Your task to perform on an android device: Open a new Chrome window Image 0: 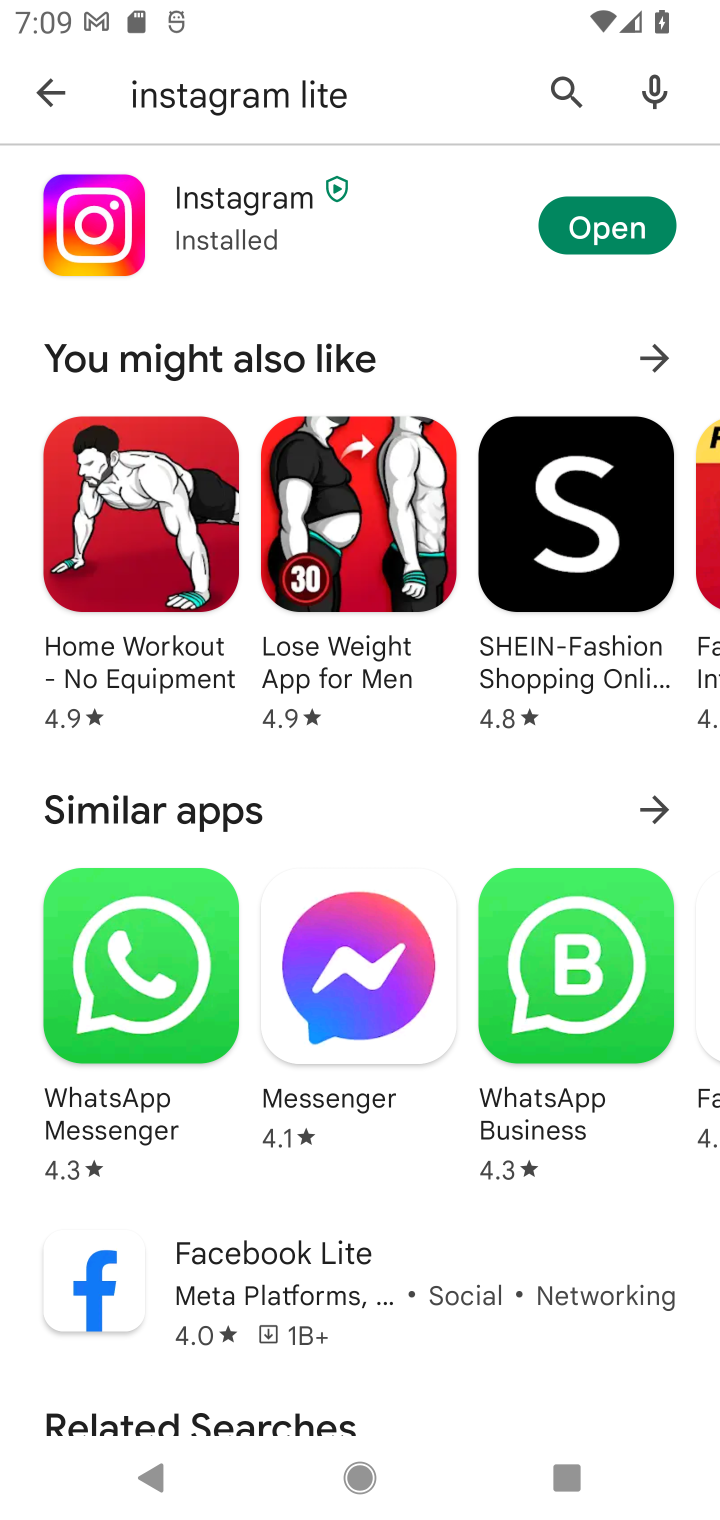
Step 0: press home button
Your task to perform on an android device: Open a new Chrome window Image 1: 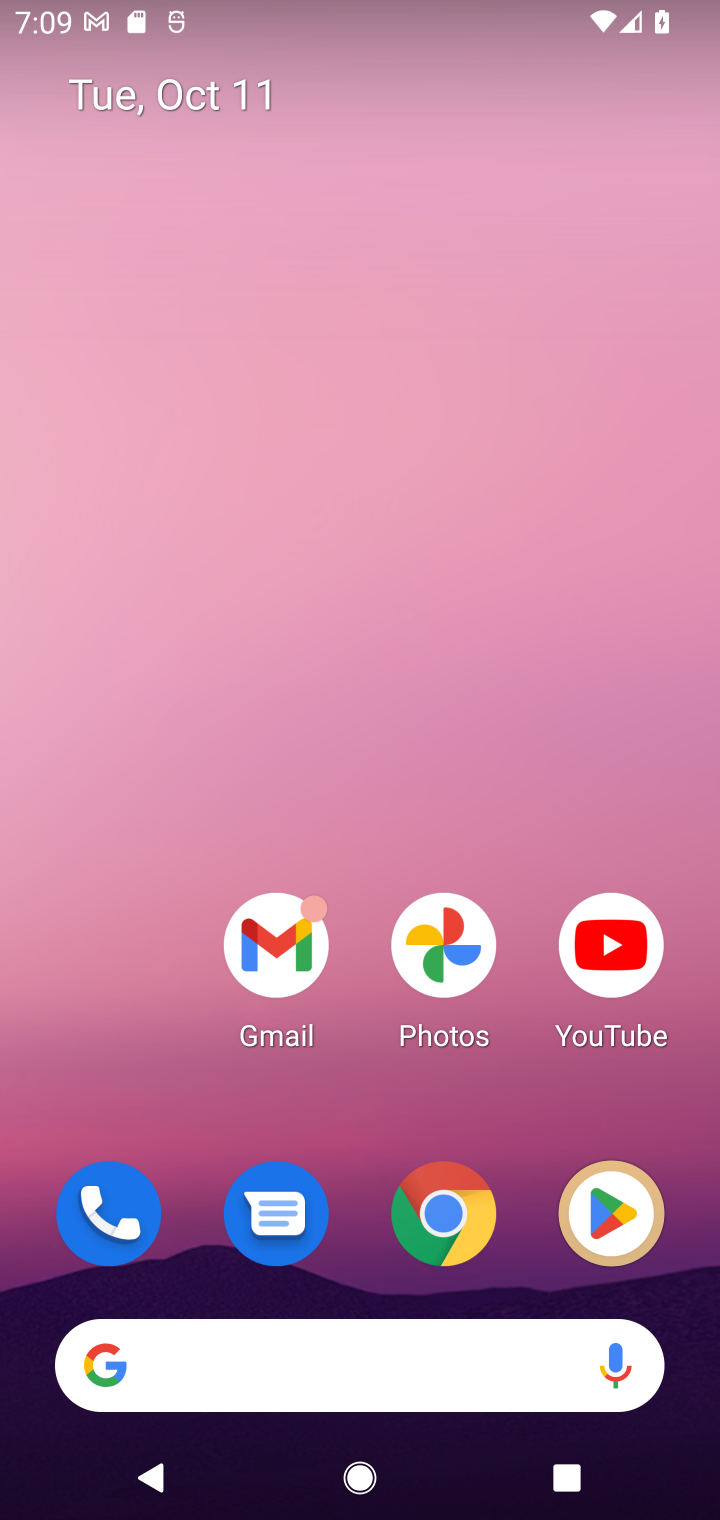
Step 1: drag from (324, 990) to (324, 378)
Your task to perform on an android device: Open a new Chrome window Image 2: 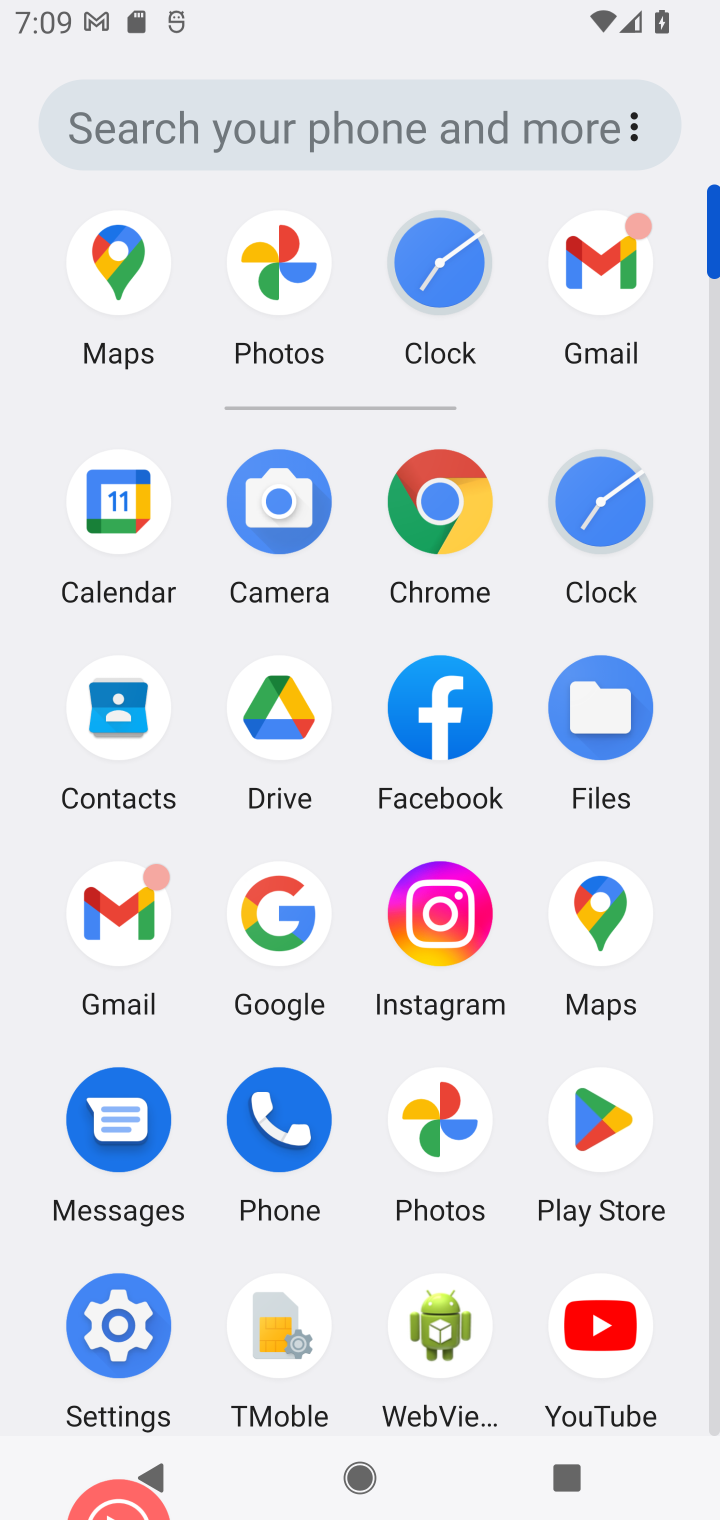
Step 2: click (424, 482)
Your task to perform on an android device: Open a new Chrome window Image 3: 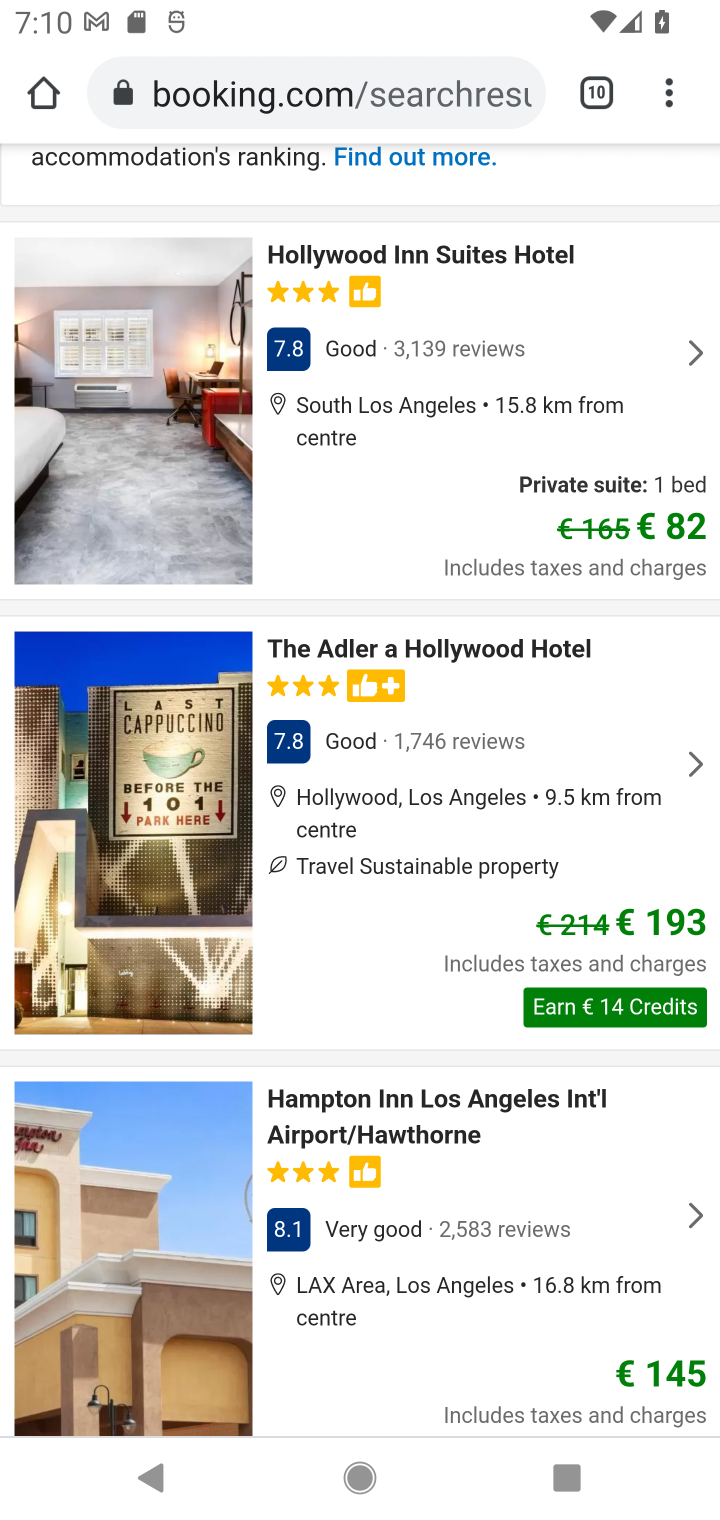
Step 3: click (428, 491)
Your task to perform on an android device: Open a new Chrome window Image 4: 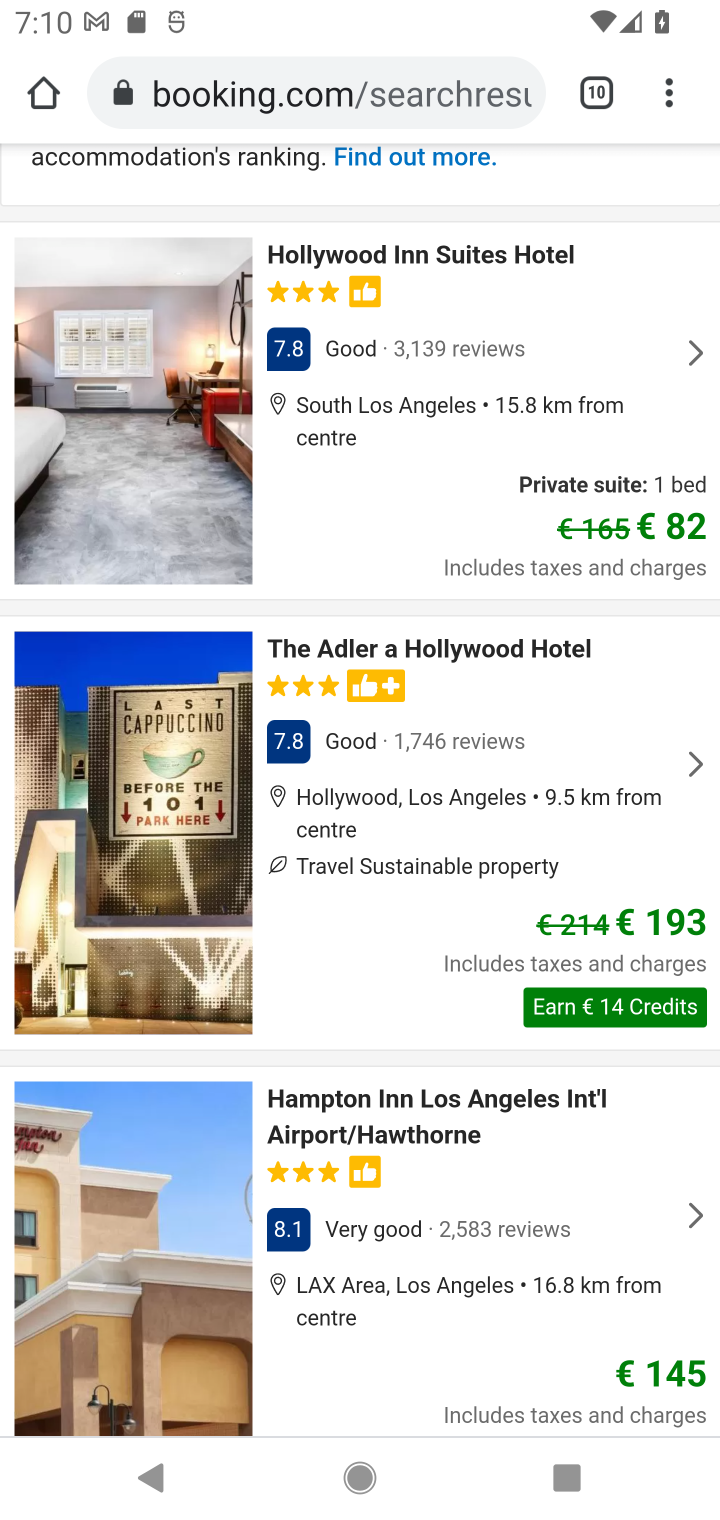
Step 4: click (664, 94)
Your task to perform on an android device: Open a new Chrome window Image 5: 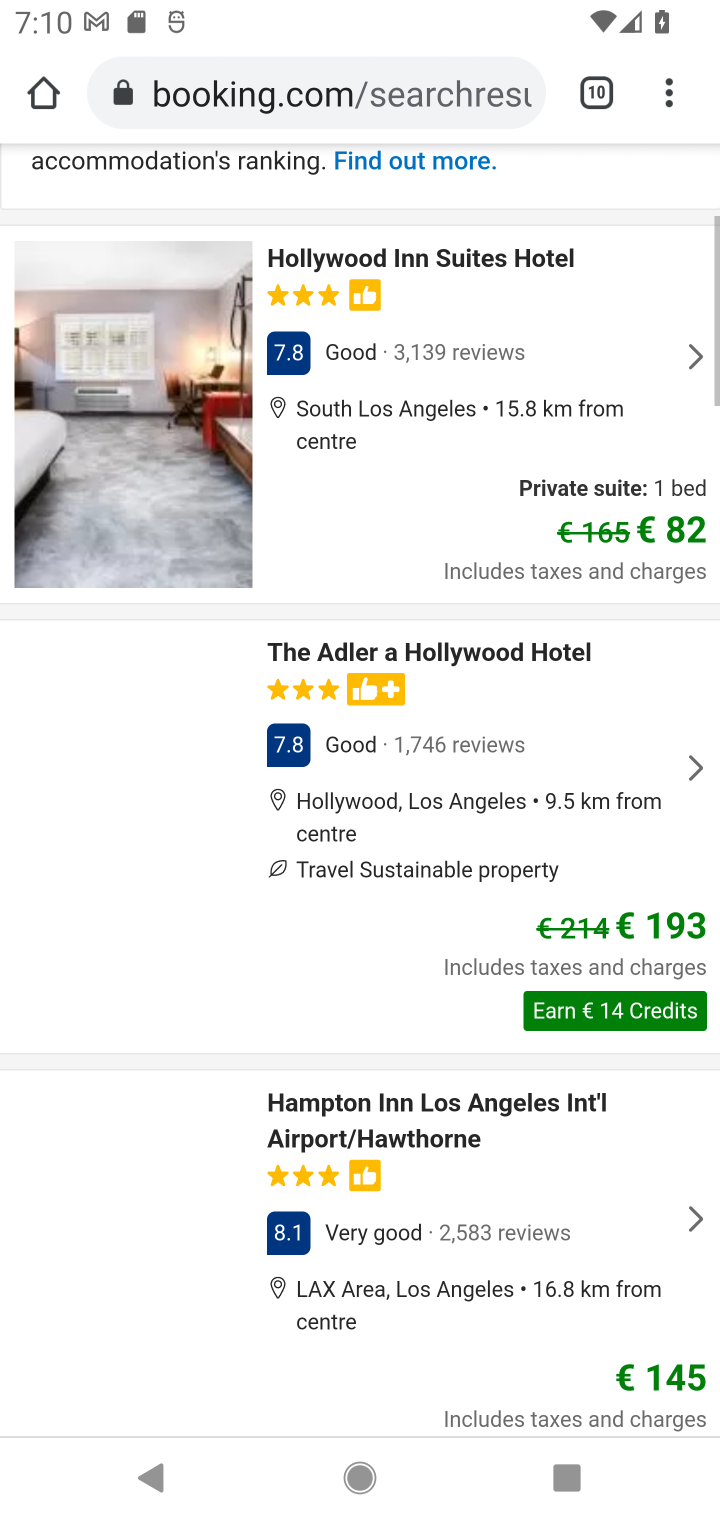
Step 5: click (695, 86)
Your task to perform on an android device: Open a new Chrome window Image 6: 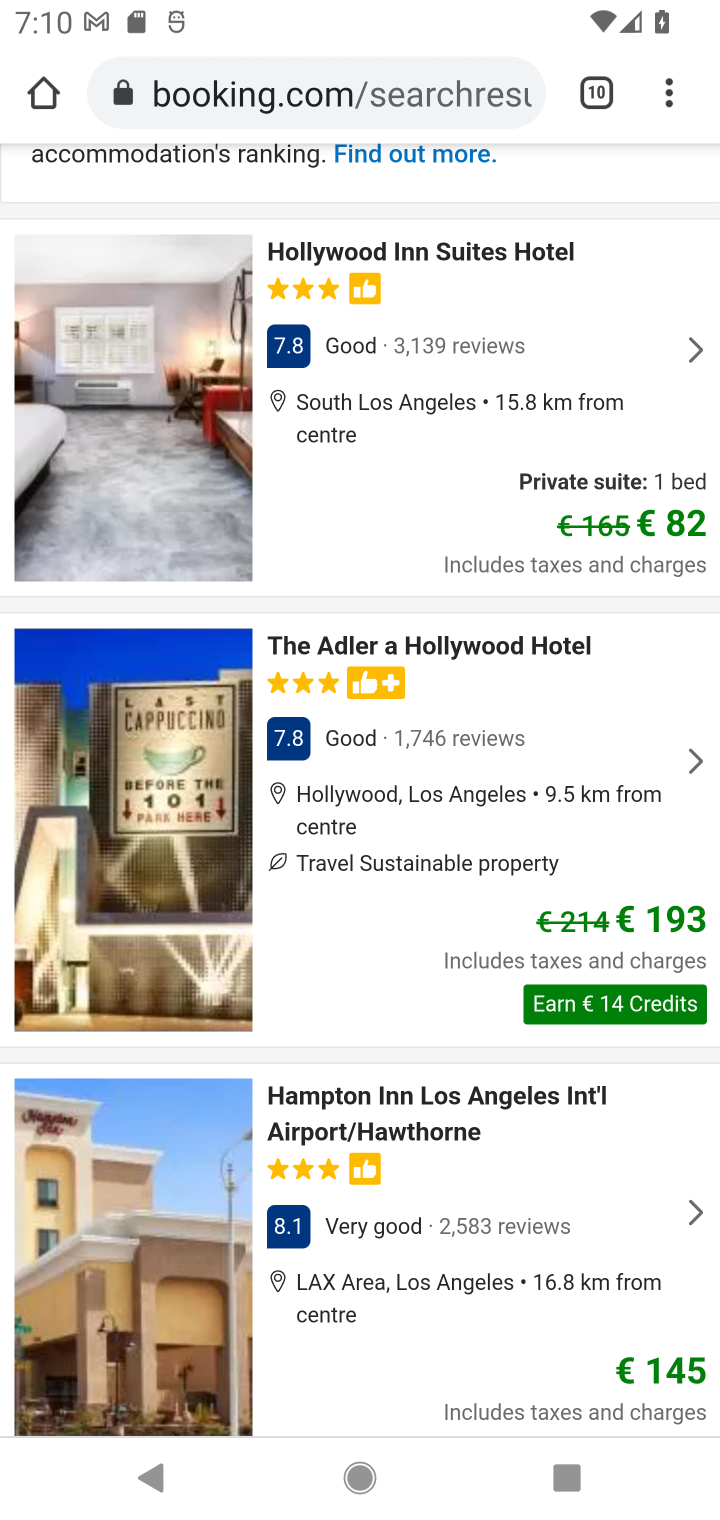
Step 6: click (659, 59)
Your task to perform on an android device: Open a new Chrome window Image 7: 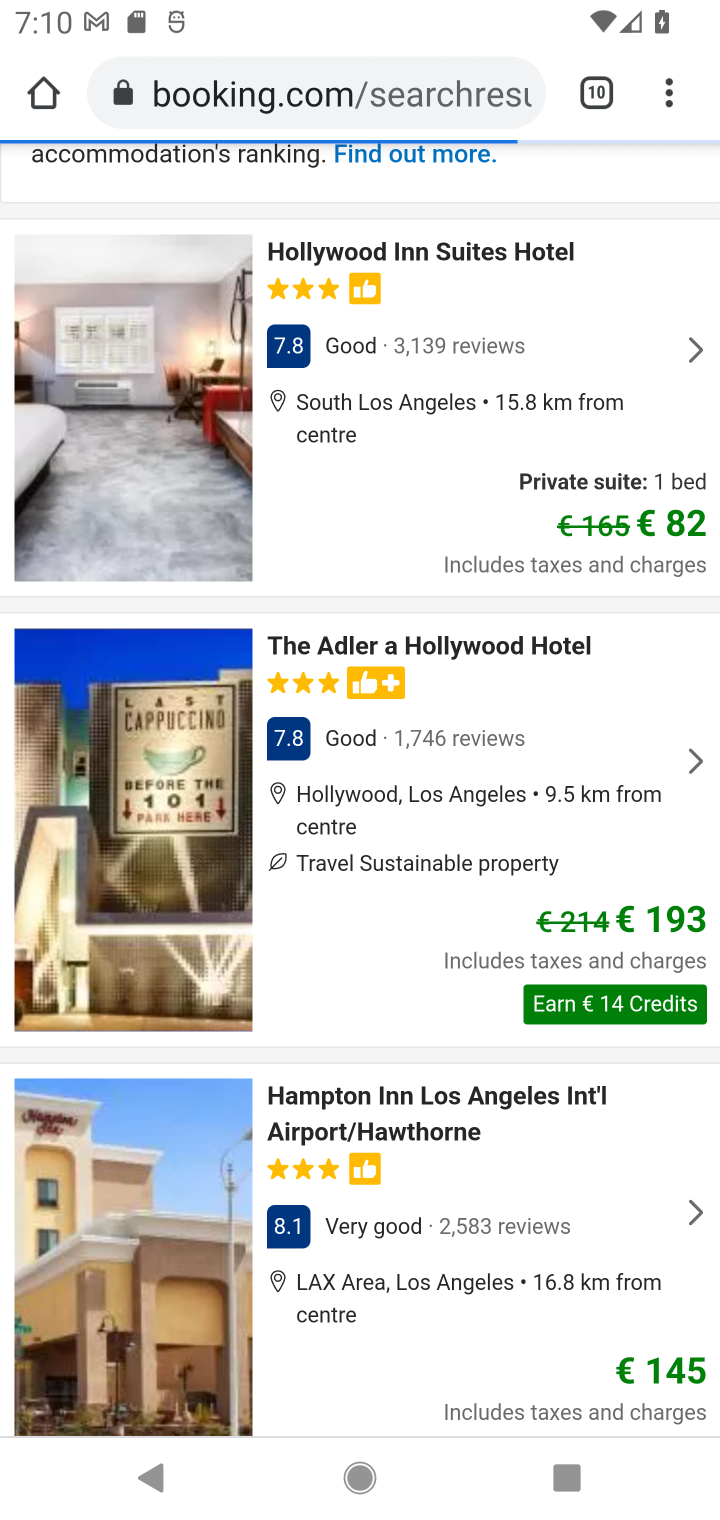
Step 7: click (665, 96)
Your task to perform on an android device: Open a new Chrome window Image 8: 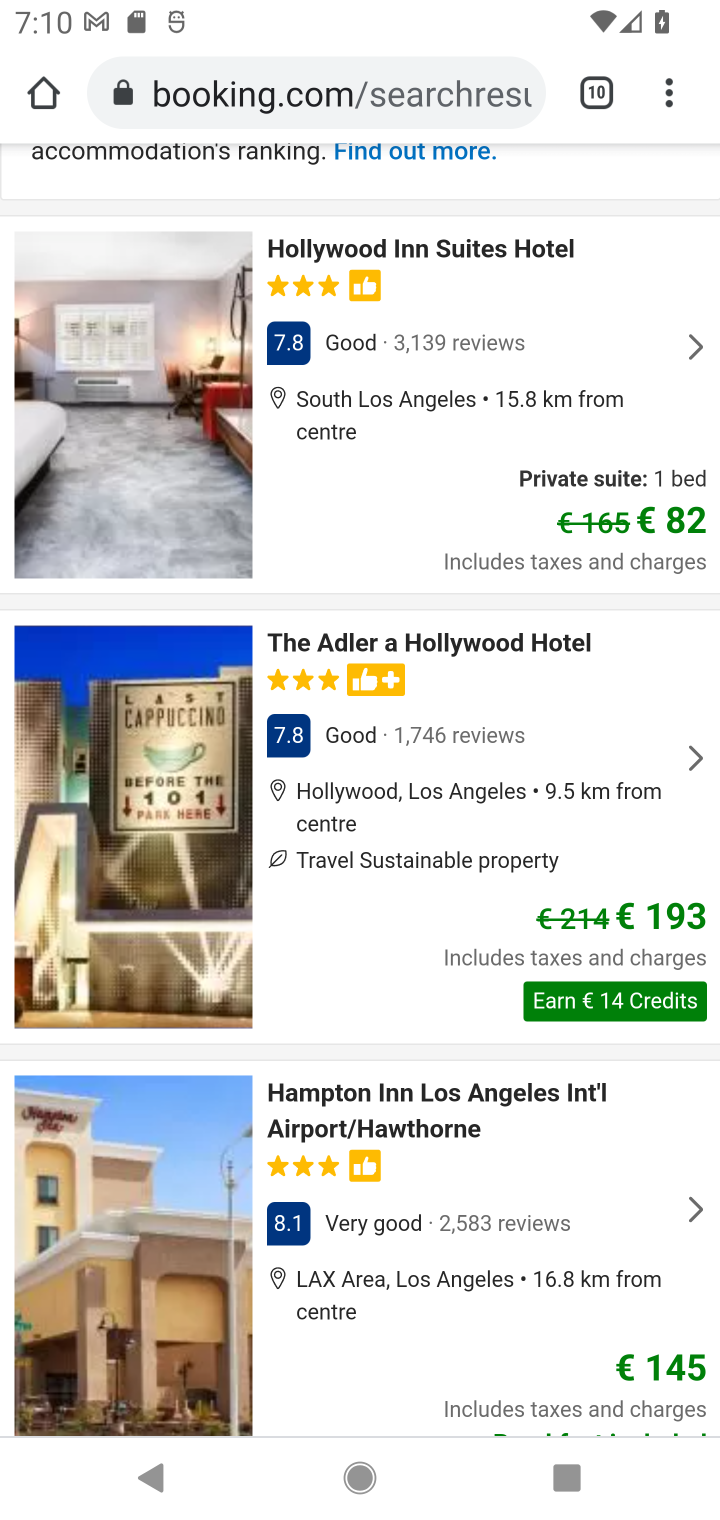
Step 8: click (667, 80)
Your task to perform on an android device: Open a new Chrome window Image 9: 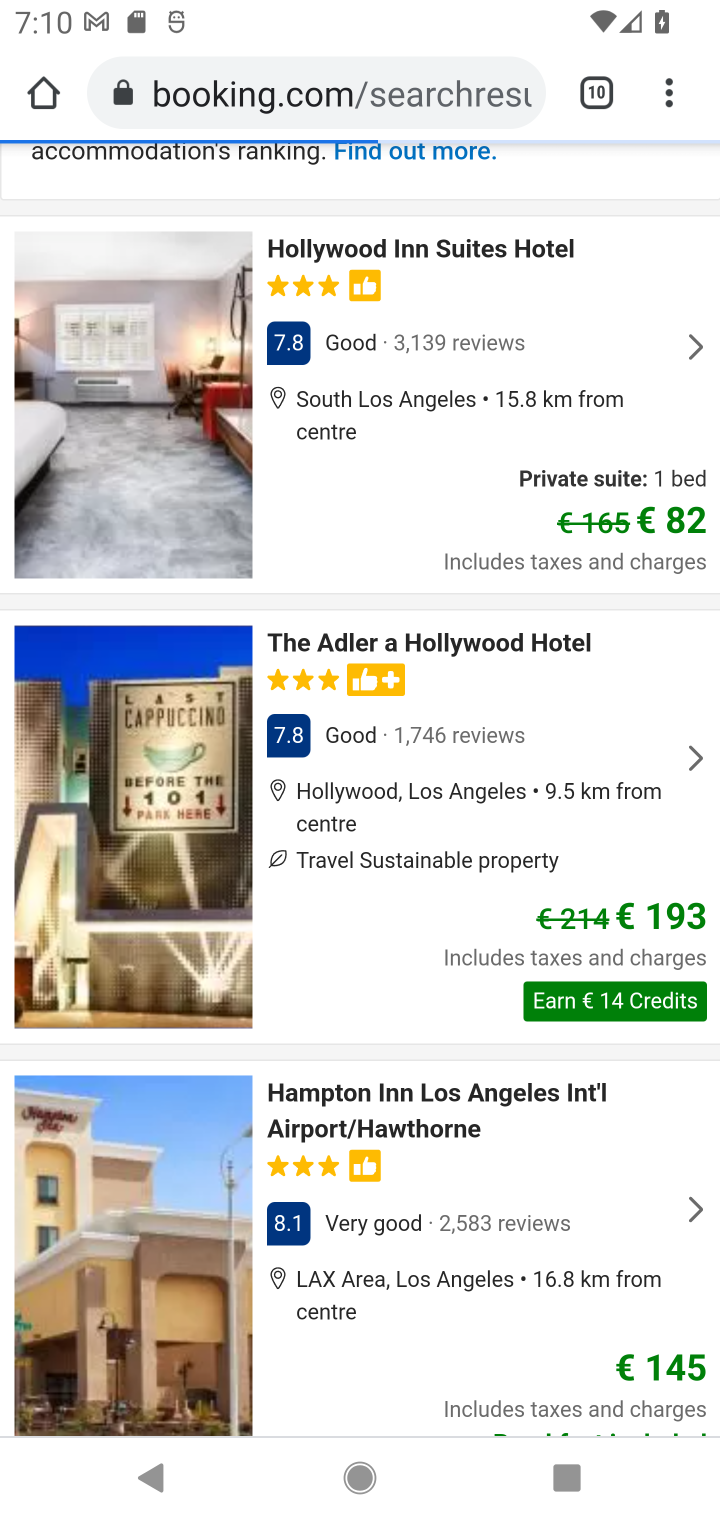
Step 9: click (667, 80)
Your task to perform on an android device: Open a new Chrome window Image 10: 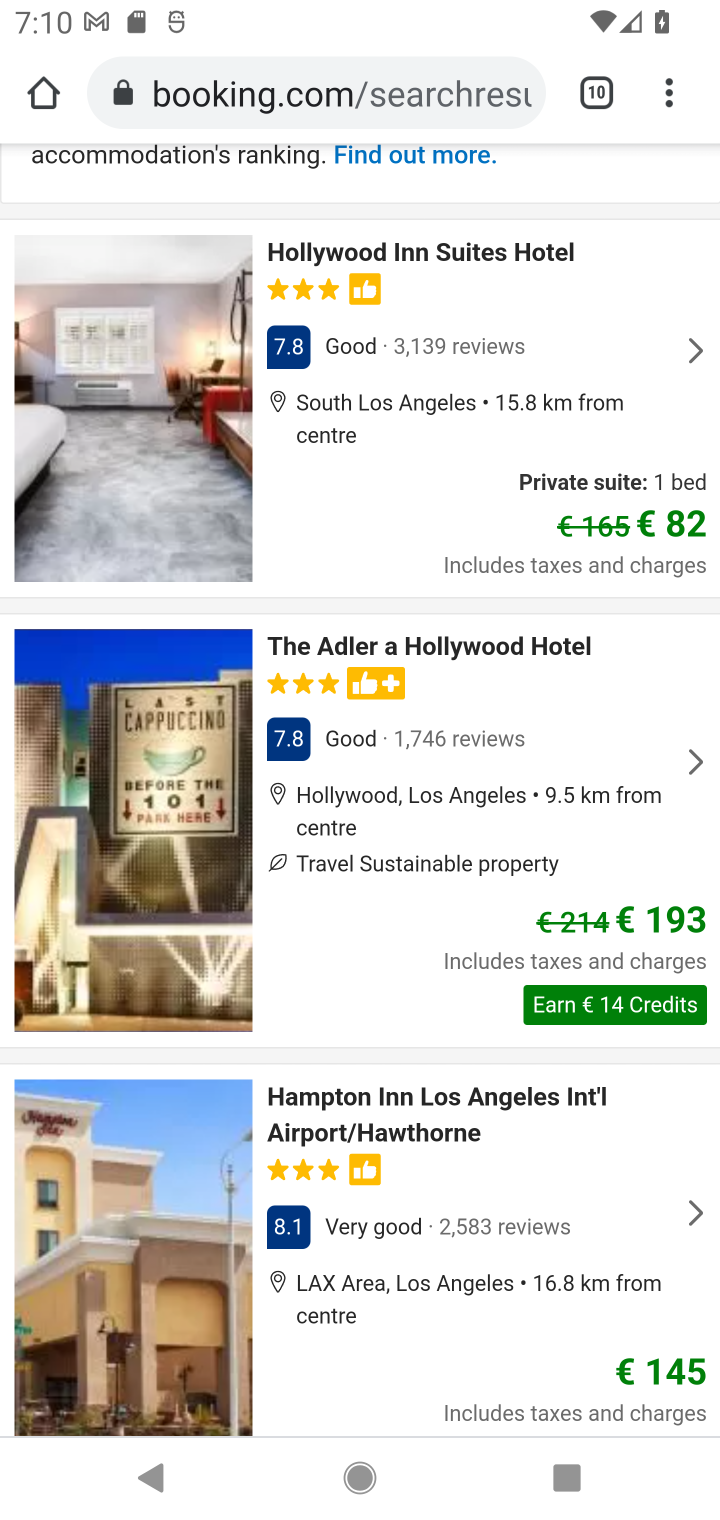
Step 10: click (663, 94)
Your task to perform on an android device: Open a new Chrome window Image 11: 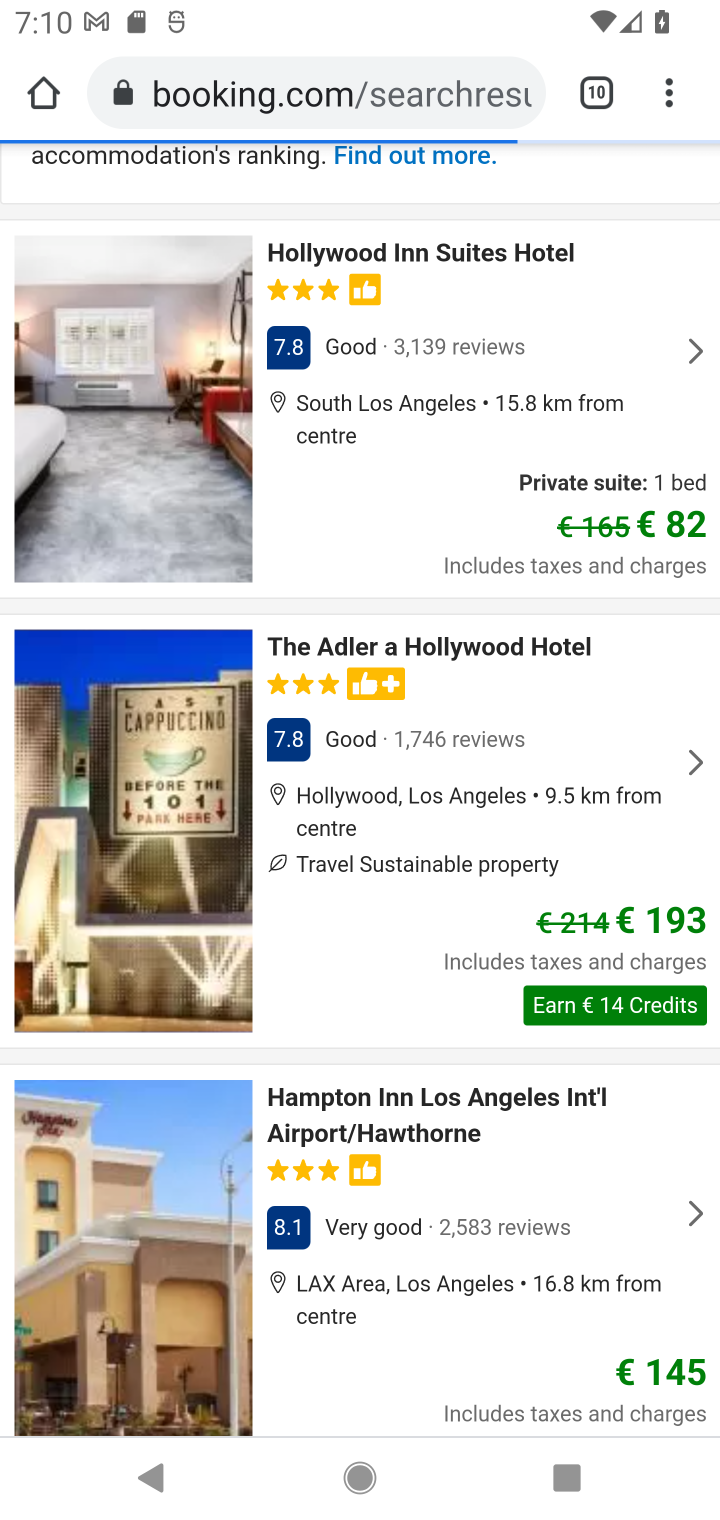
Step 11: click (658, 79)
Your task to perform on an android device: Open a new Chrome window Image 12: 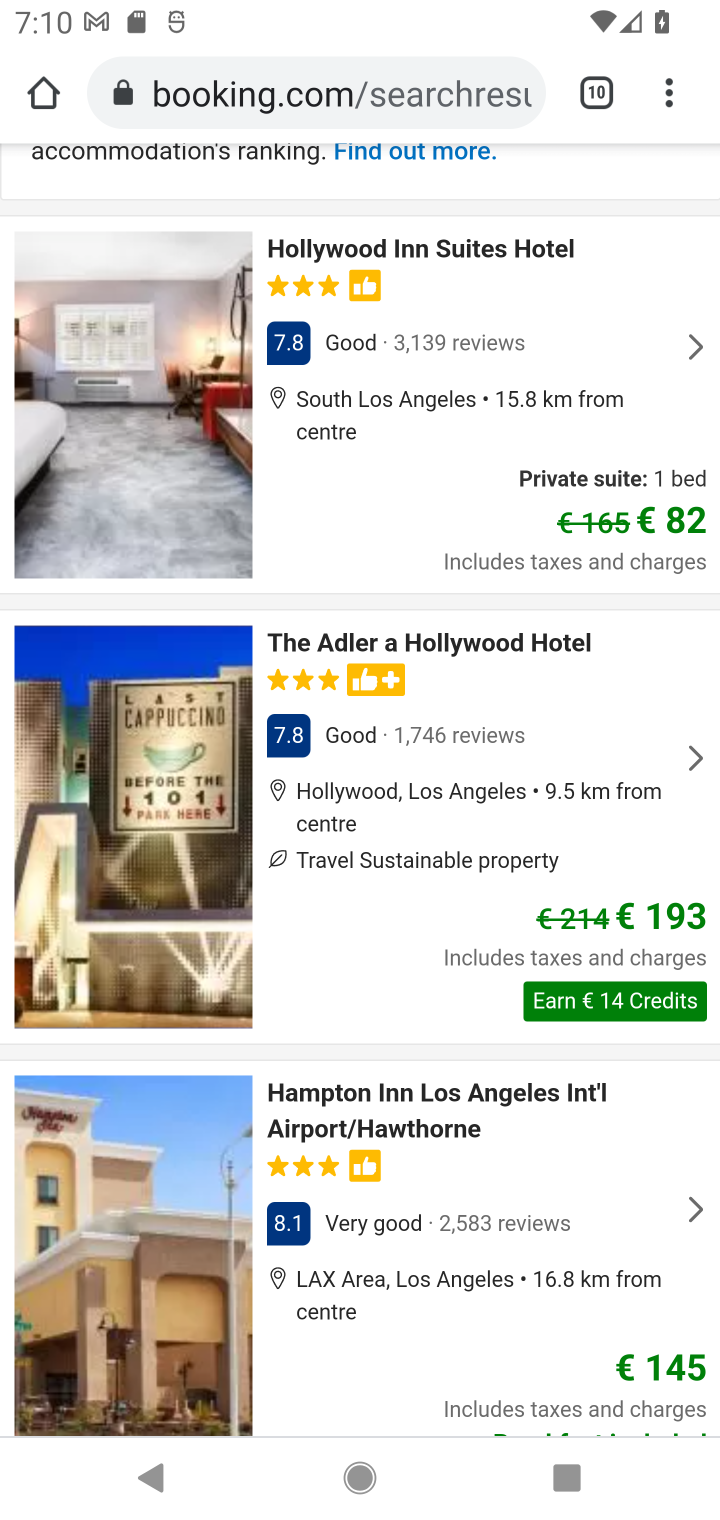
Step 12: click (658, 93)
Your task to perform on an android device: Open a new Chrome window Image 13: 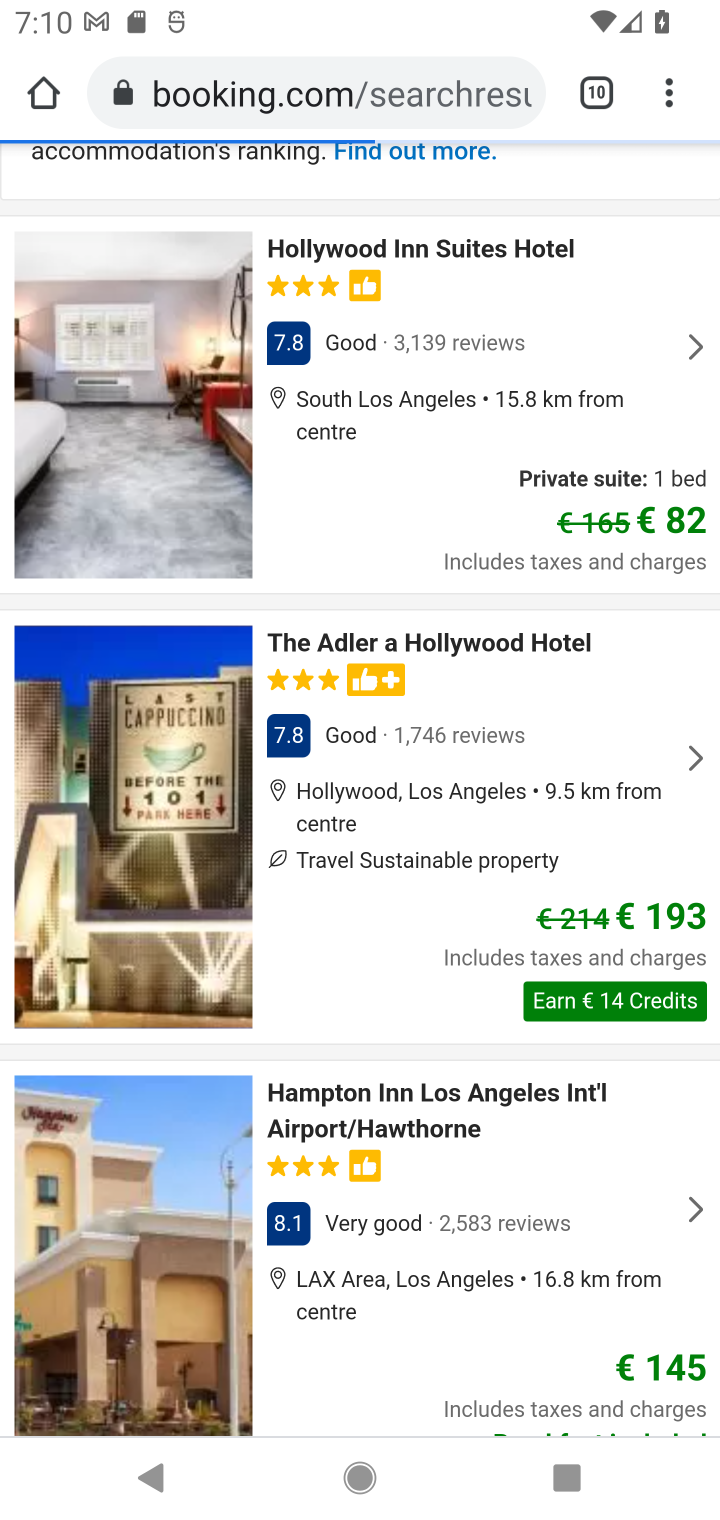
Step 13: click (658, 93)
Your task to perform on an android device: Open a new Chrome window Image 14: 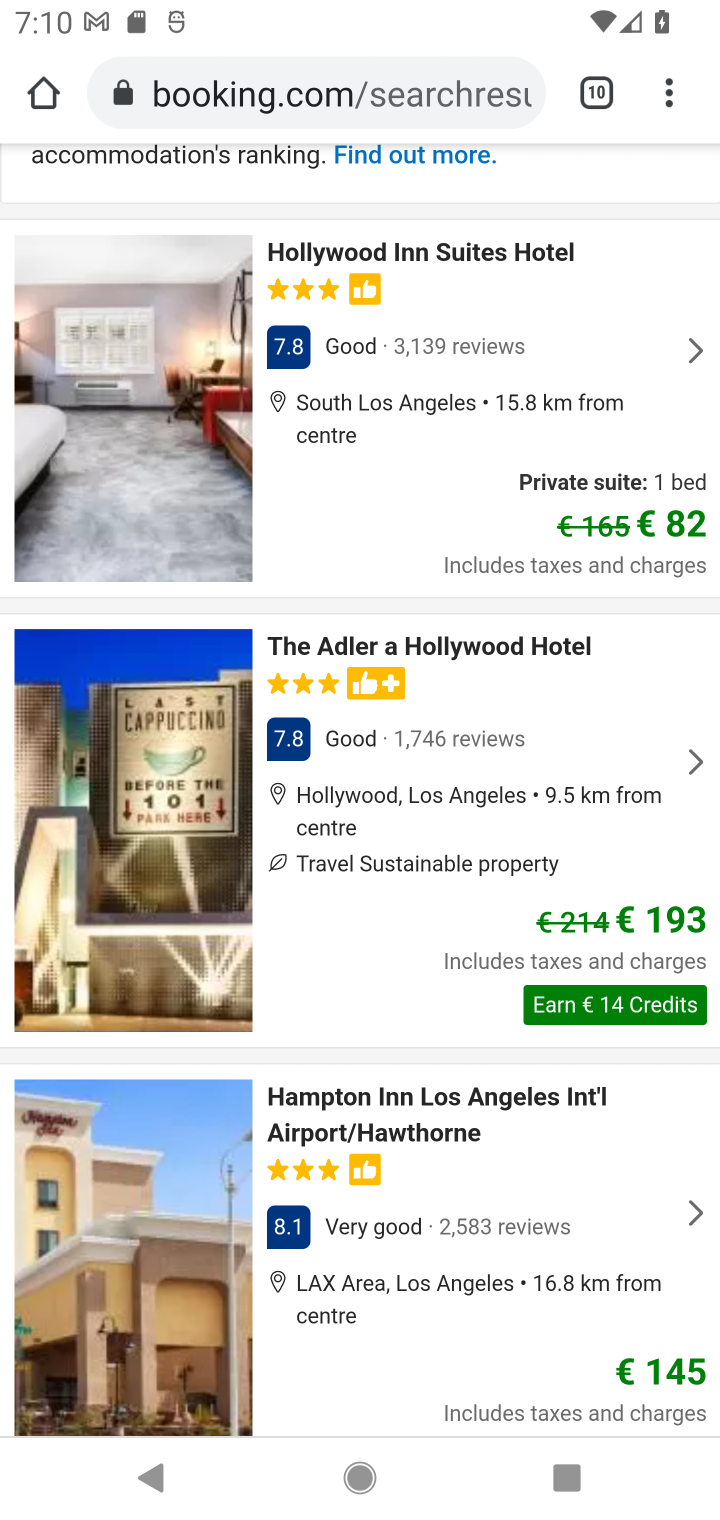
Step 14: click (640, 107)
Your task to perform on an android device: Open a new Chrome window Image 15: 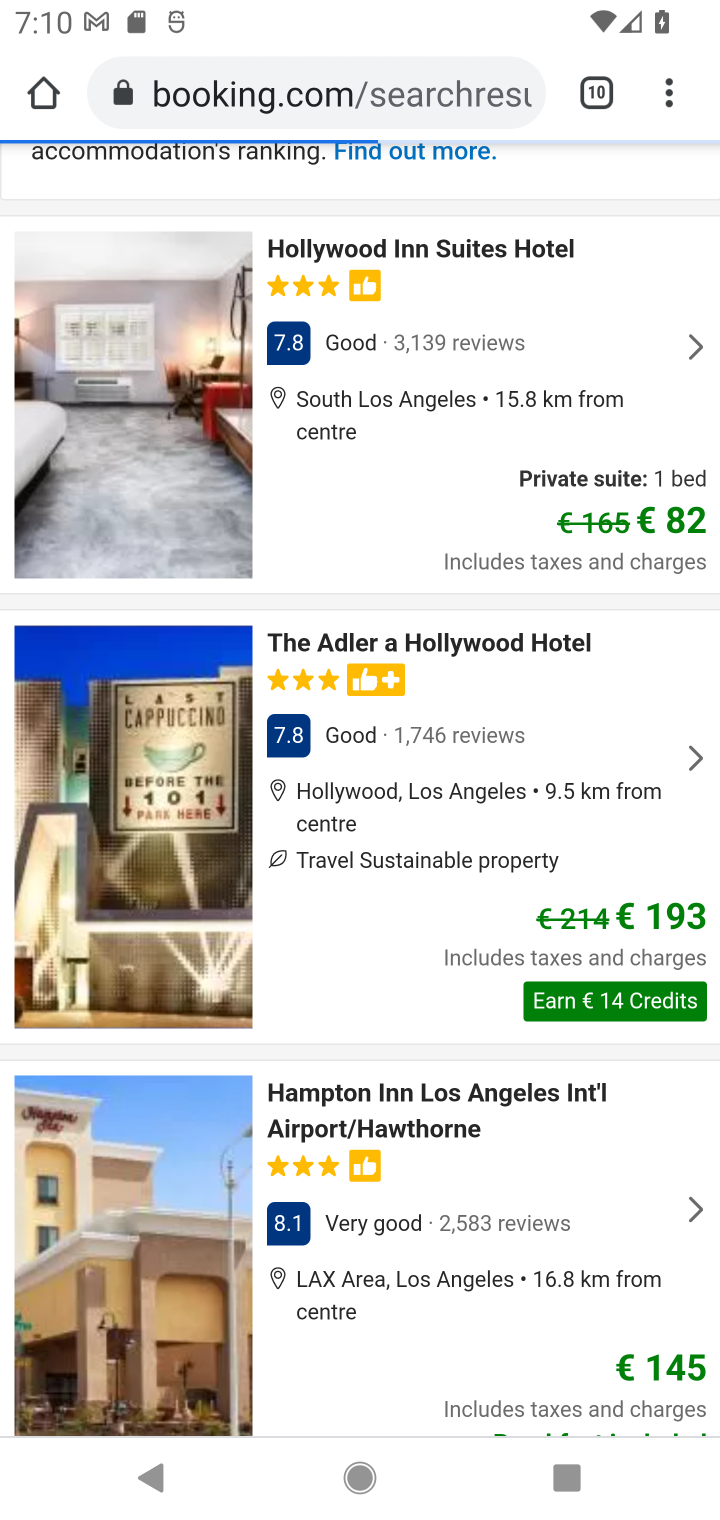
Step 15: click (648, 78)
Your task to perform on an android device: Open a new Chrome window Image 16: 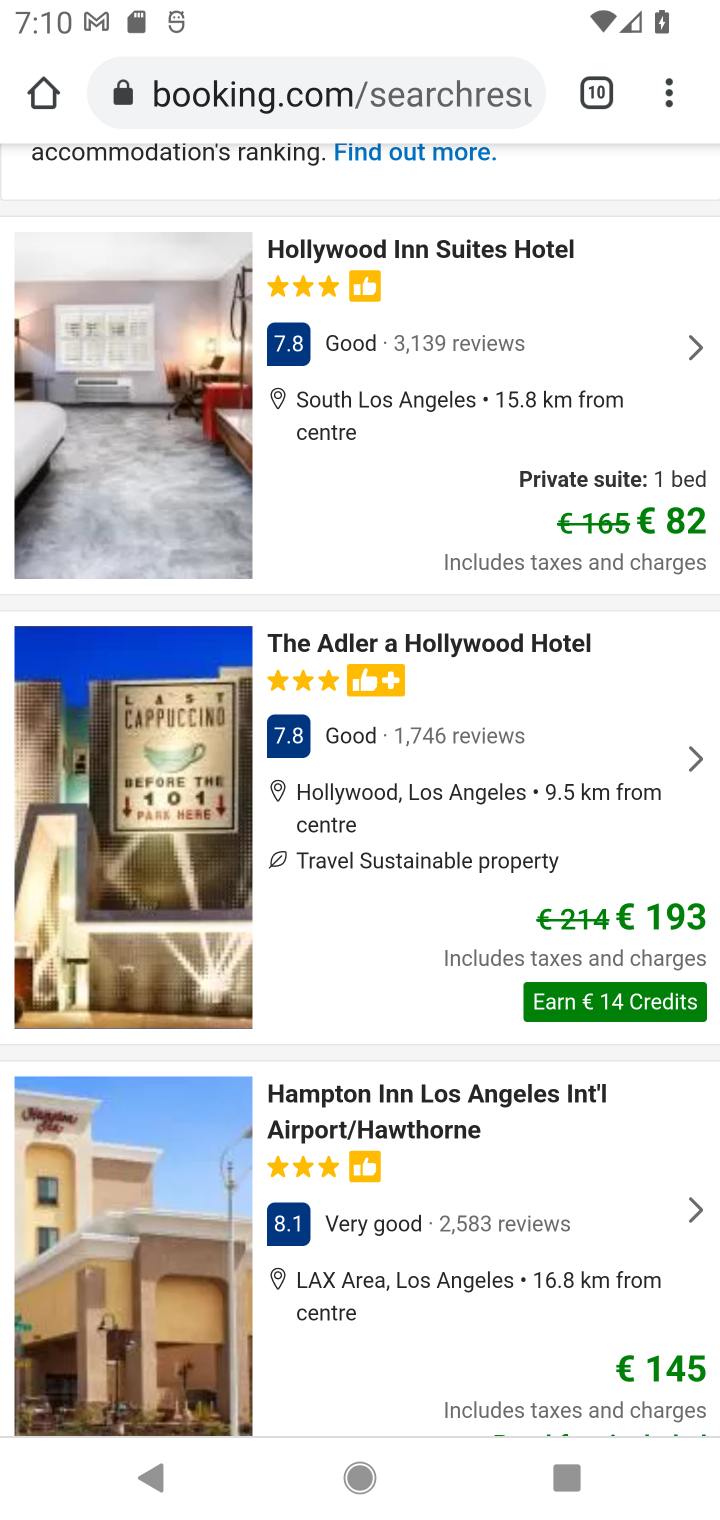
Step 16: click (678, 101)
Your task to perform on an android device: Open a new Chrome window Image 17: 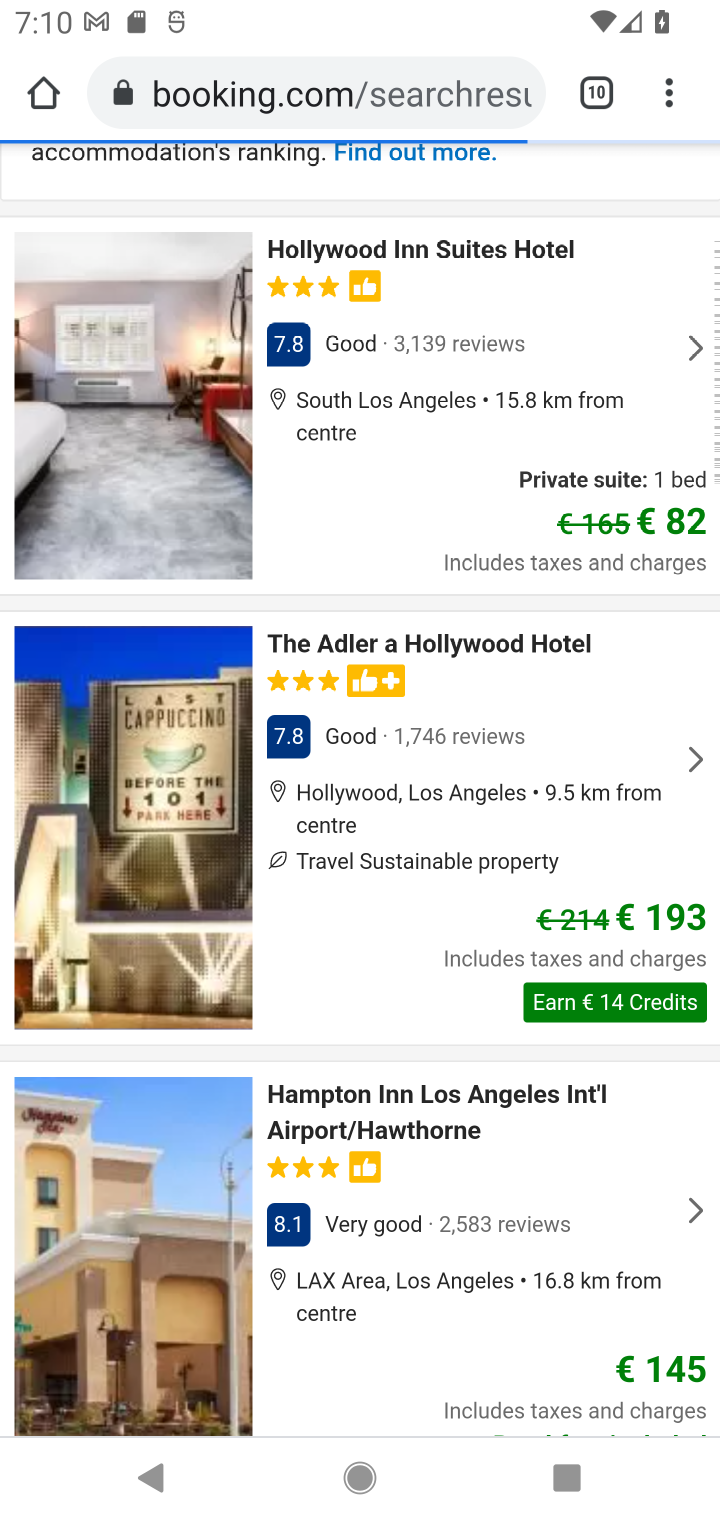
Step 17: click (678, 101)
Your task to perform on an android device: Open a new Chrome window Image 18: 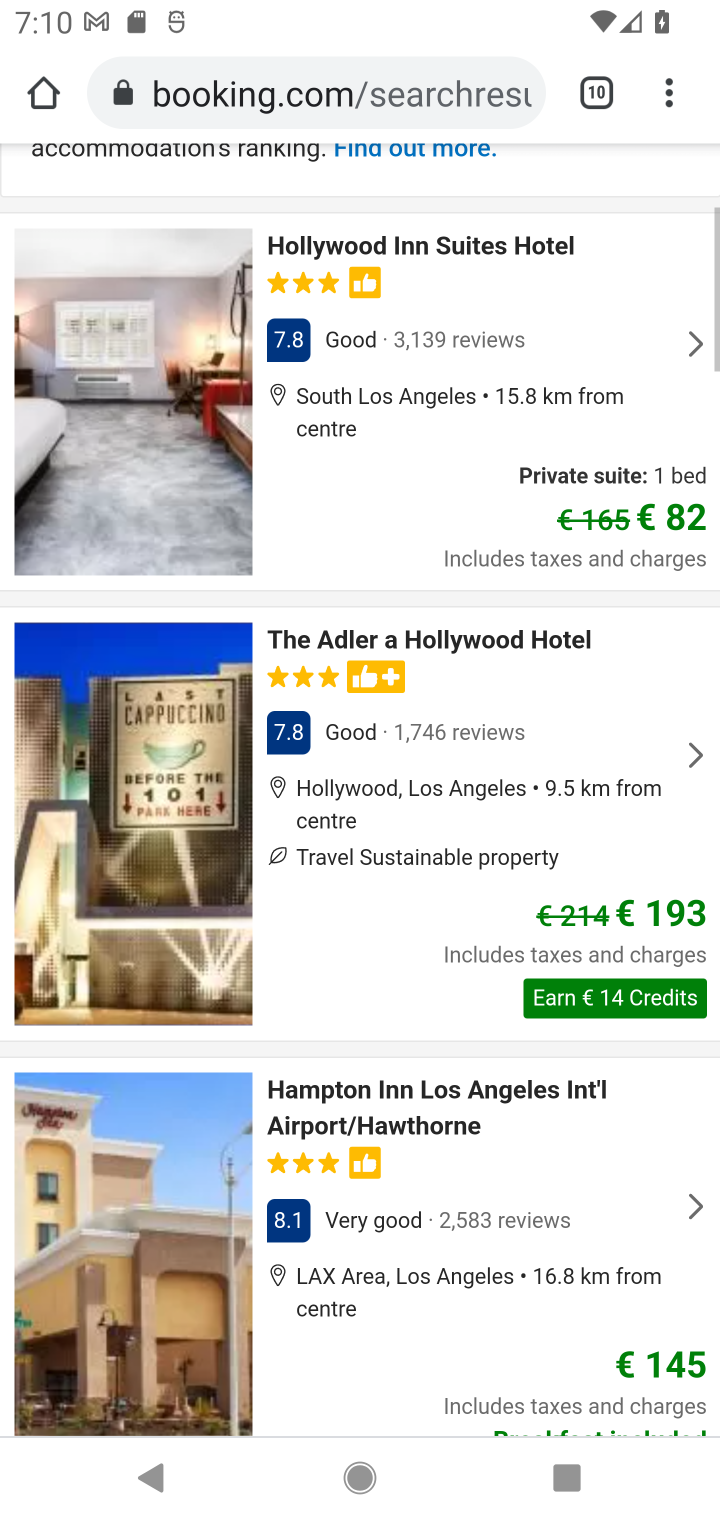
Step 18: click (669, 89)
Your task to perform on an android device: Open a new Chrome window Image 19: 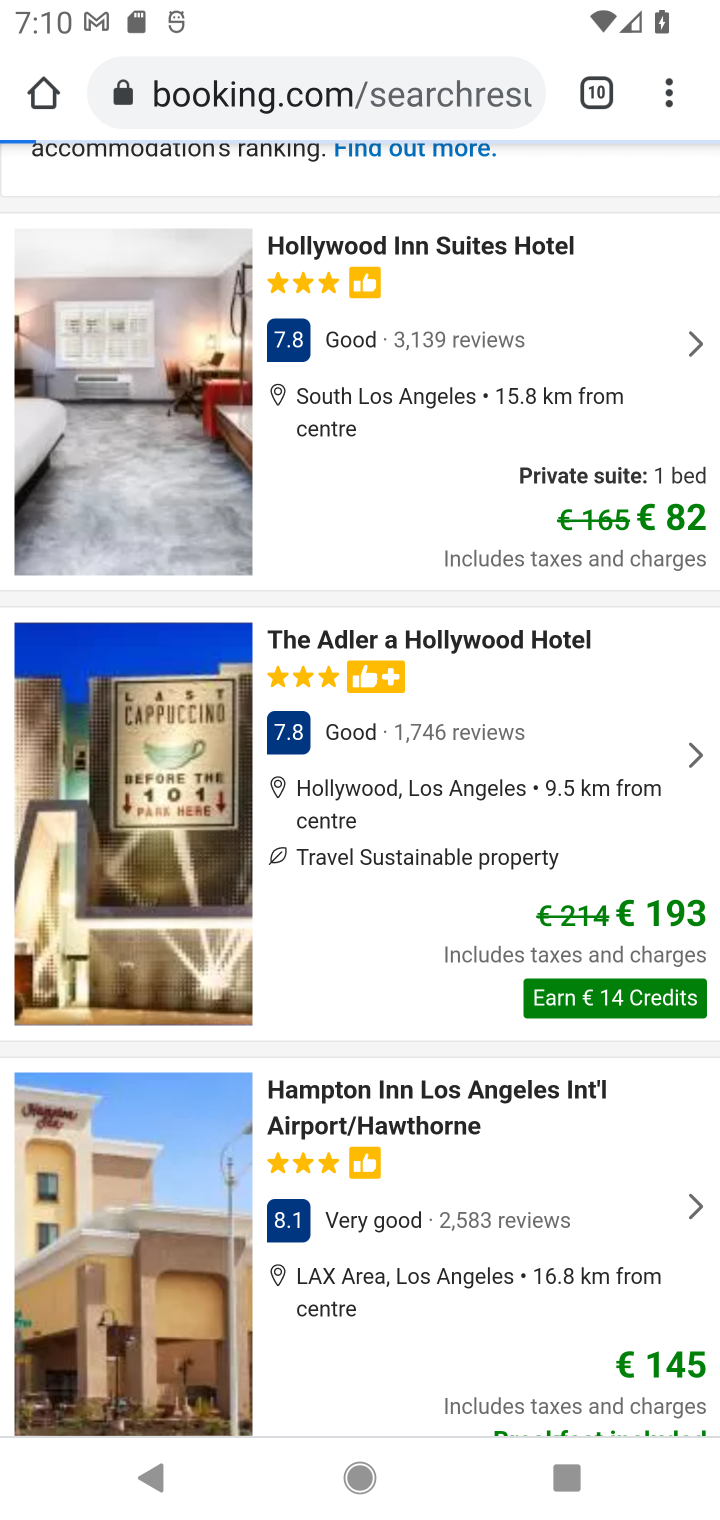
Step 19: click (669, 89)
Your task to perform on an android device: Open a new Chrome window Image 20: 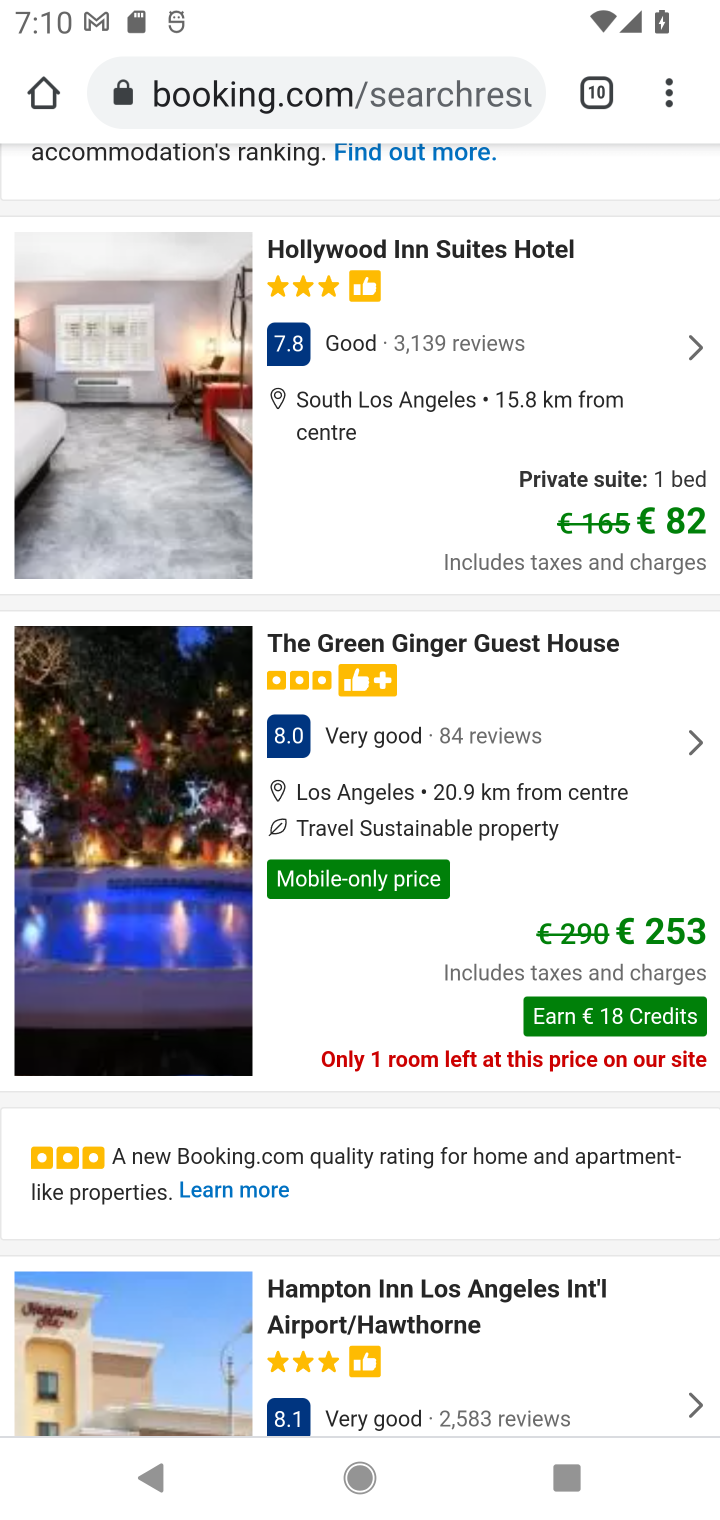
Step 20: click (656, 74)
Your task to perform on an android device: Open a new Chrome window Image 21: 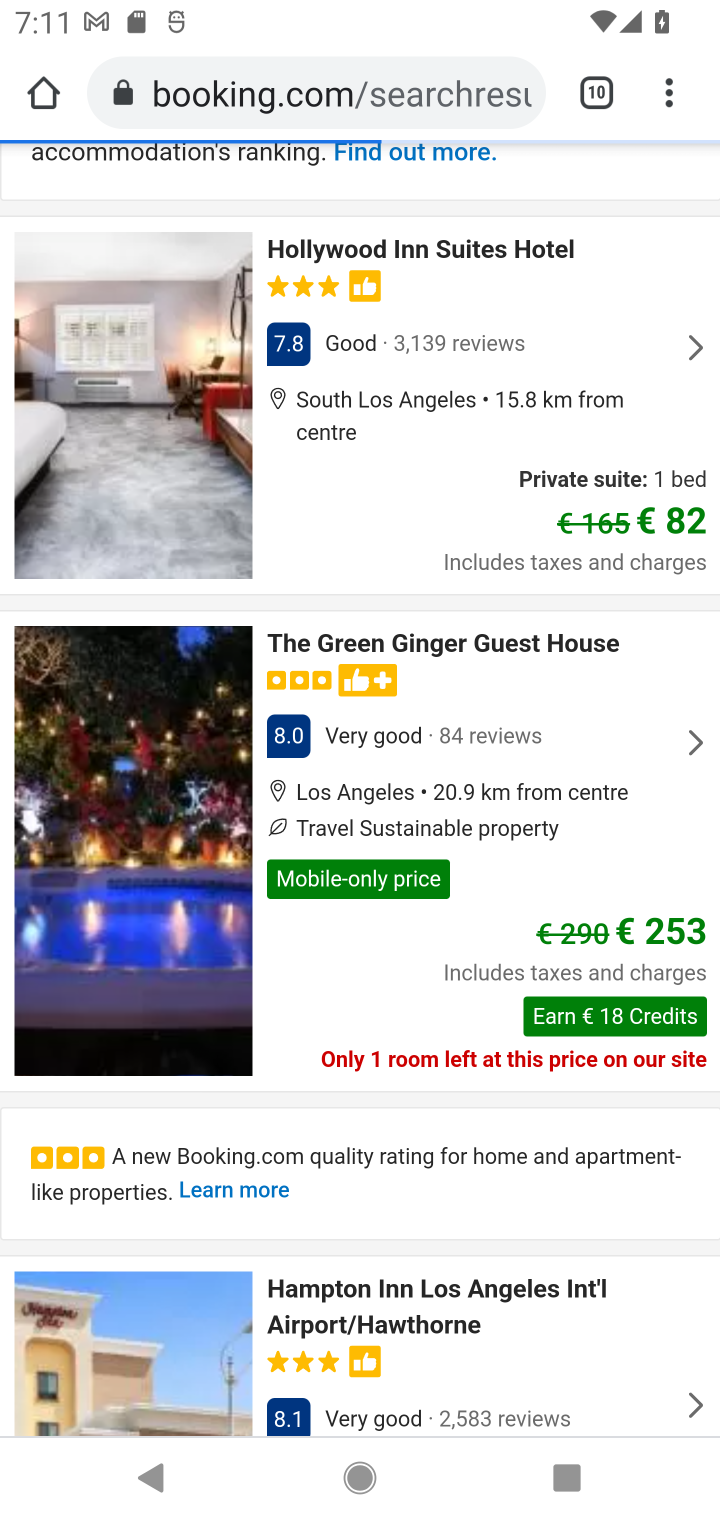
Step 21: click (664, 93)
Your task to perform on an android device: Open a new Chrome window Image 22: 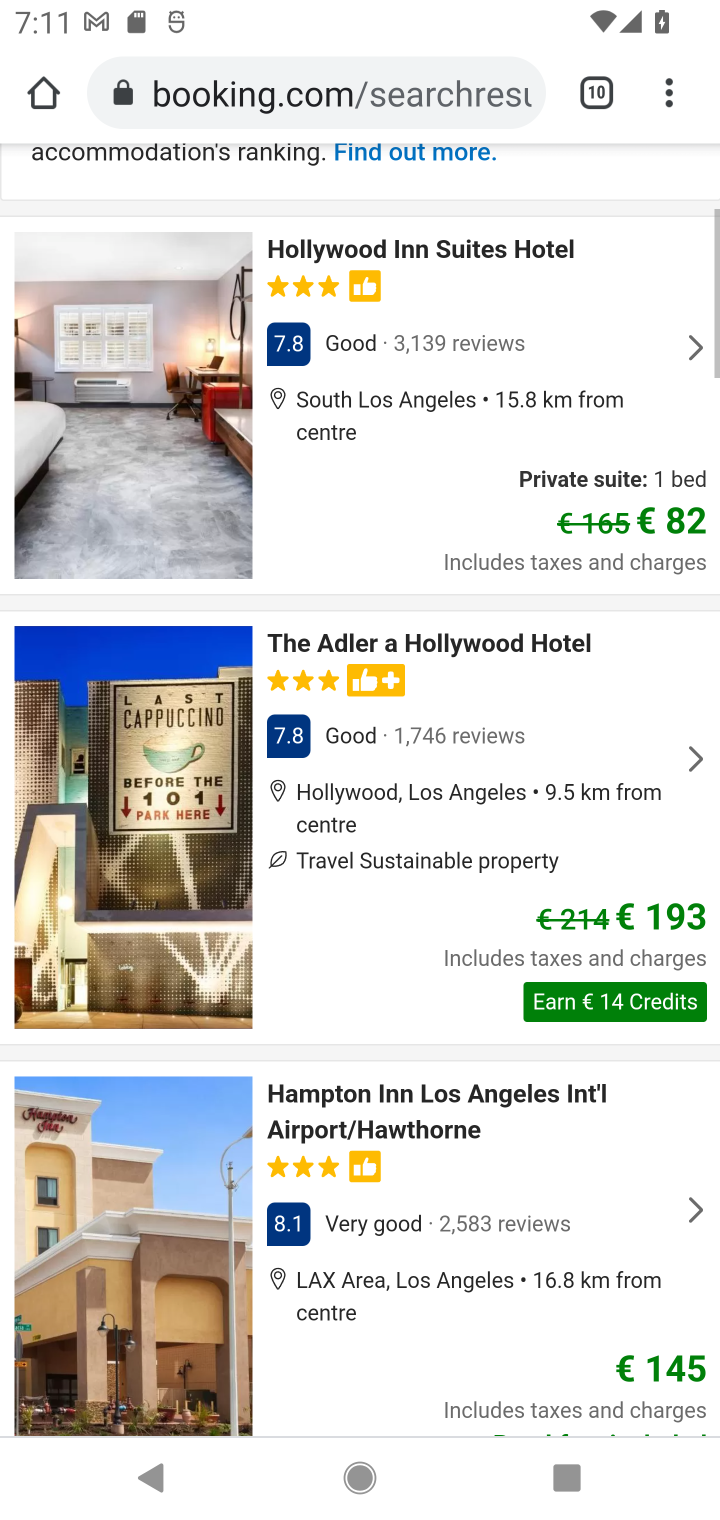
Step 22: click (664, 93)
Your task to perform on an android device: Open a new Chrome window Image 23: 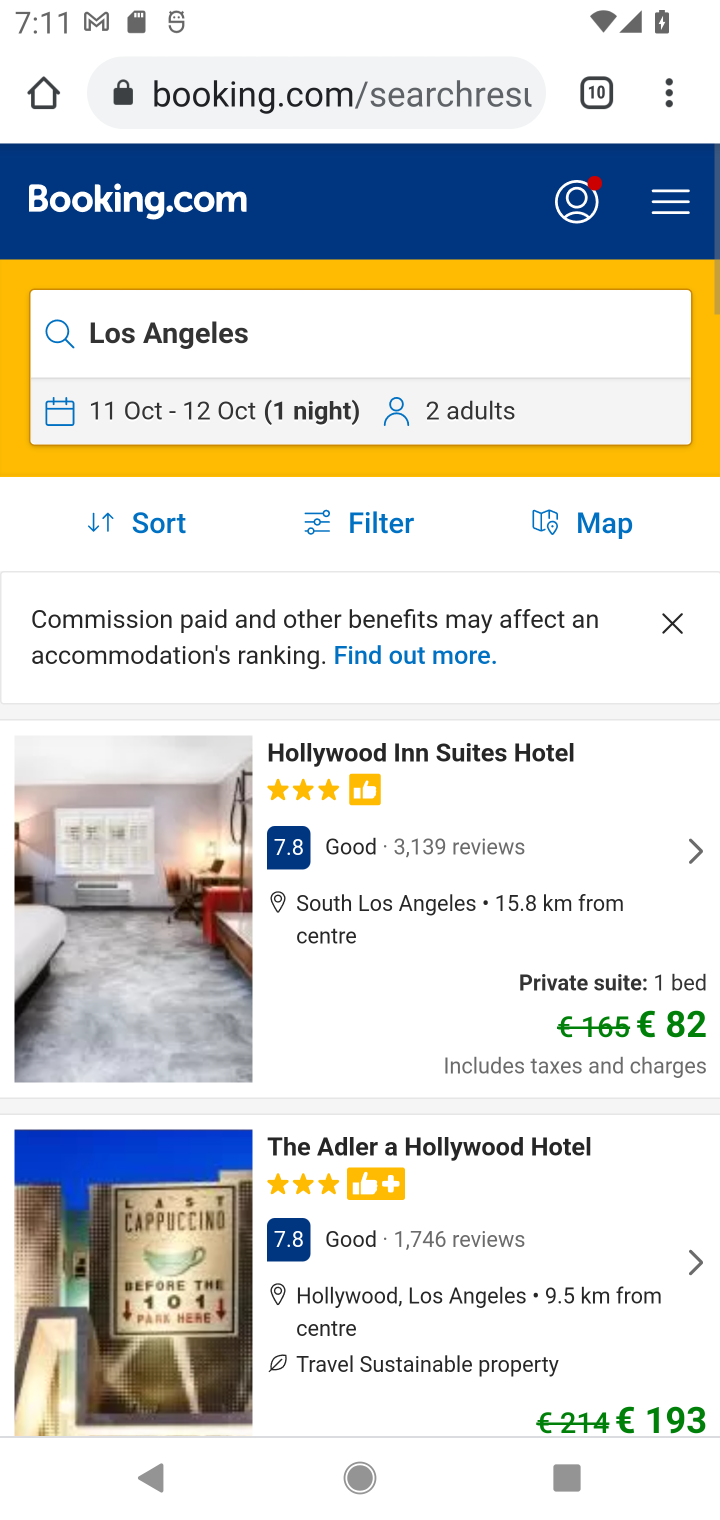
Step 23: click (639, 81)
Your task to perform on an android device: Open a new Chrome window Image 24: 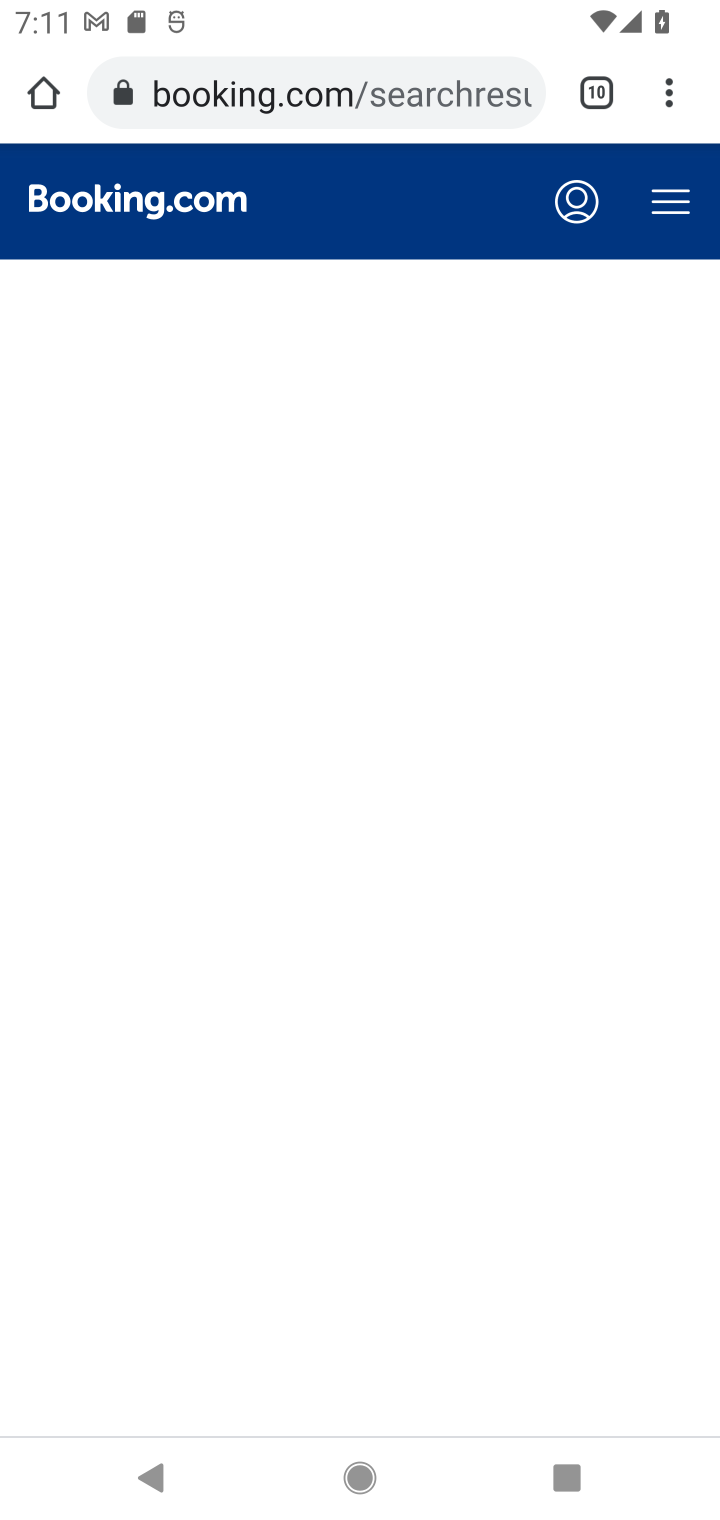
Step 24: click (606, 91)
Your task to perform on an android device: Open a new Chrome window Image 25: 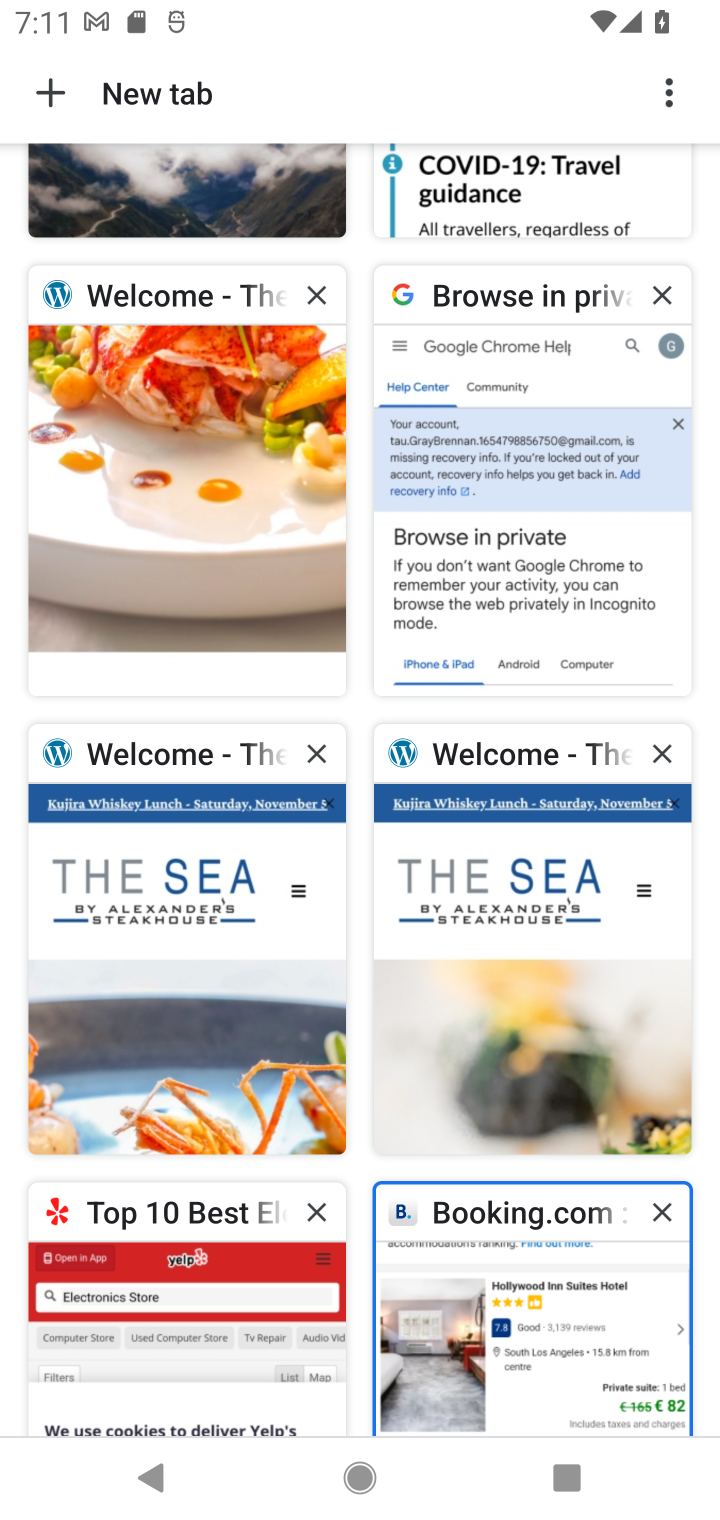
Step 25: click (646, 102)
Your task to perform on an android device: Open a new Chrome window Image 26: 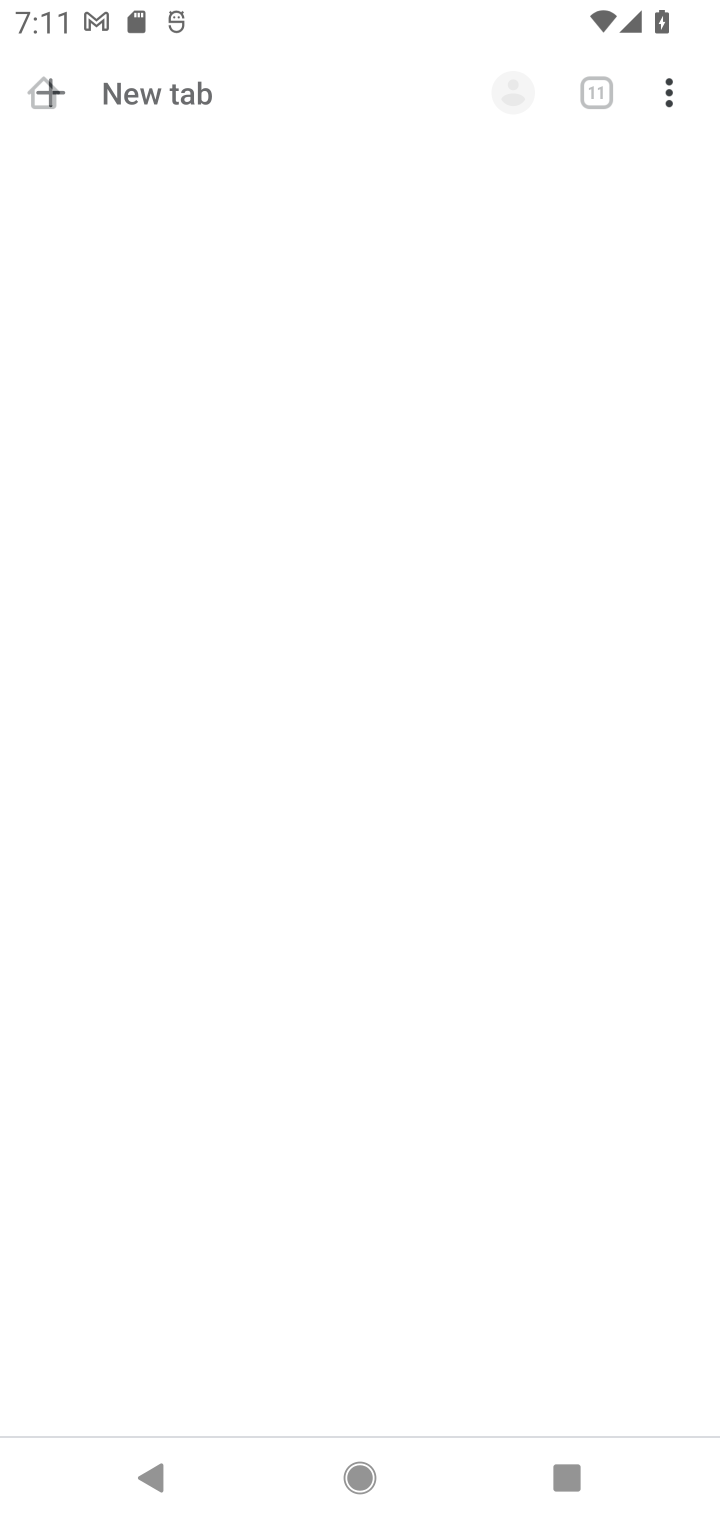
Step 26: click (646, 102)
Your task to perform on an android device: Open a new Chrome window Image 27: 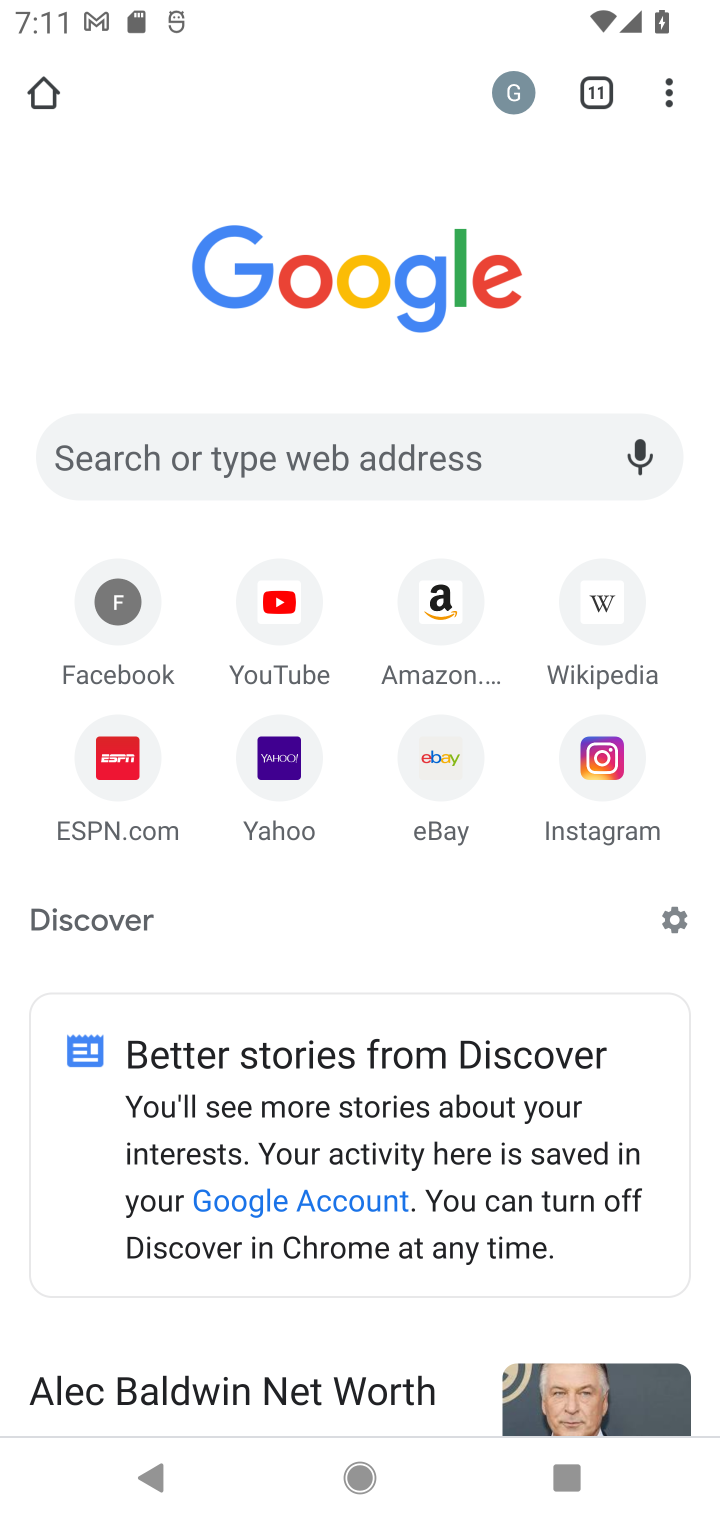
Step 27: task complete